Your task to perform on an android device: View the shopping cart on newegg.com. Add corsair k70 to the cart on newegg.com, then select checkout. Image 0: 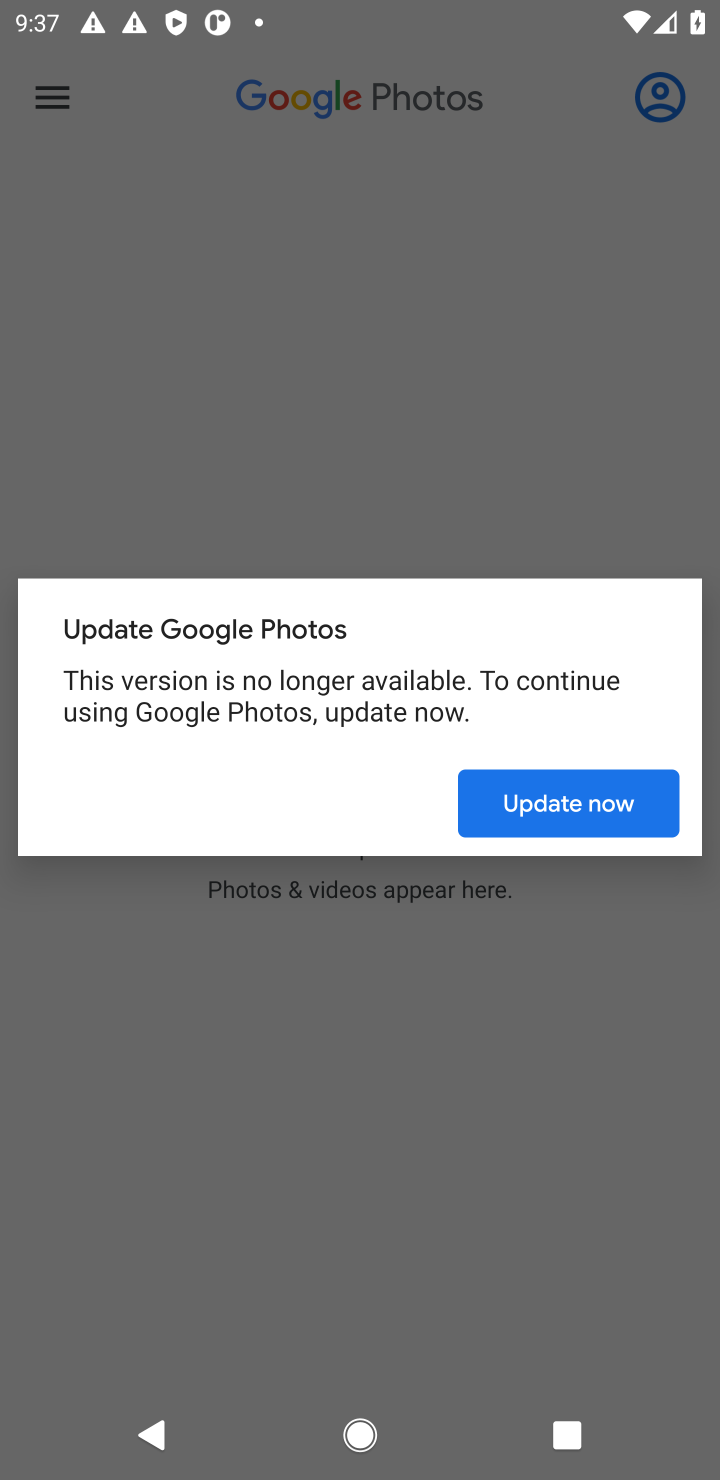
Step 0: press home button
Your task to perform on an android device: View the shopping cart on newegg.com. Add corsair k70 to the cart on newegg.com, then select checkout. Image 1: 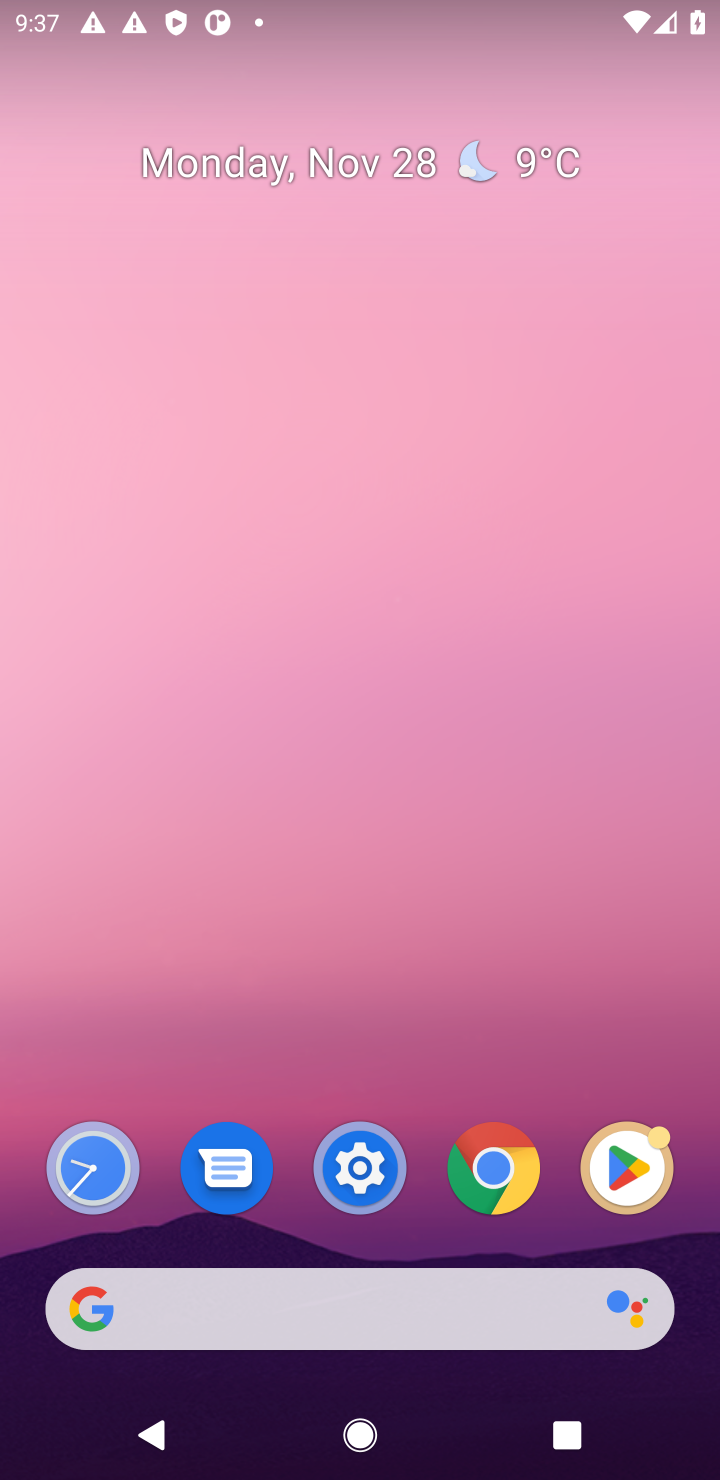
Step 1: click (434, 1311)
Your task to perform on an android device: View the shopping cart on newegg.com. Add corsair k70 to the cart on newegg.com, then select checkout. Image 2: 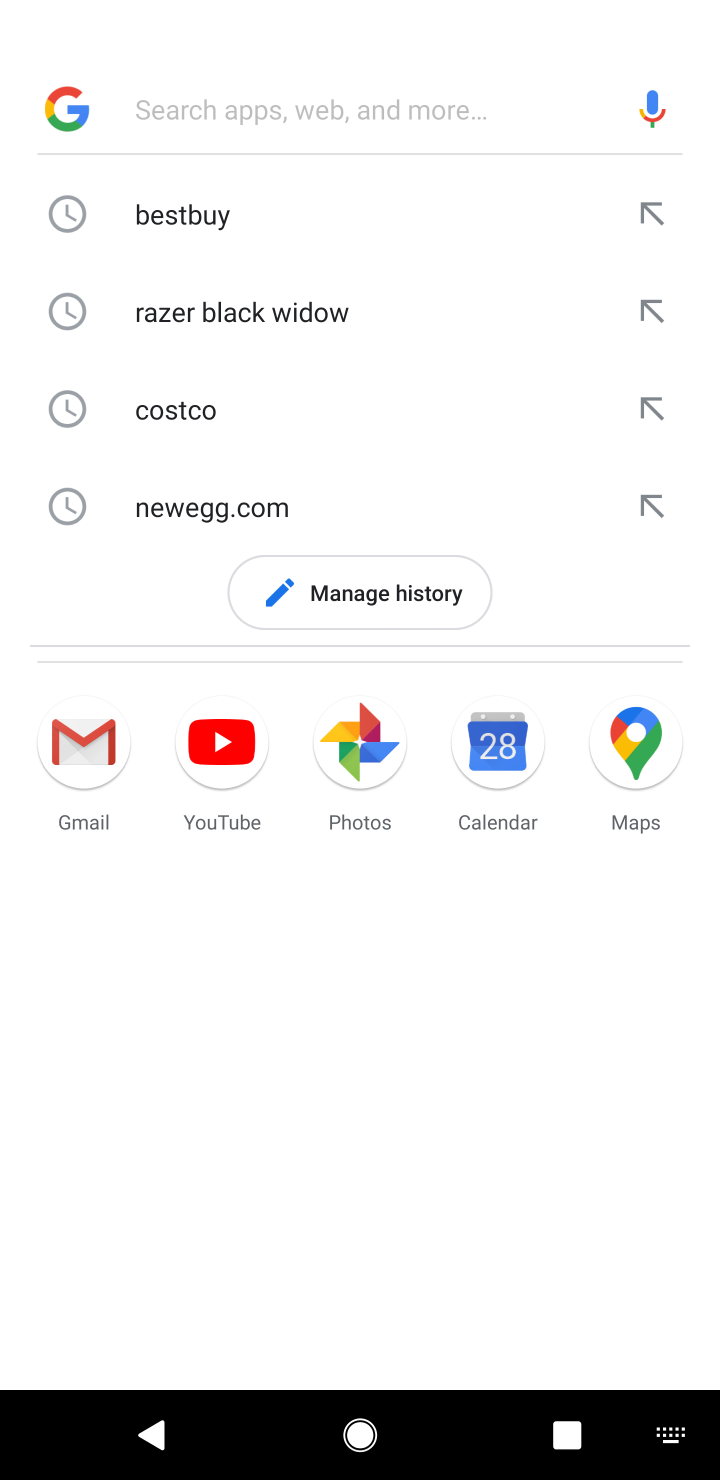
Step 2: type "newegg"
Your task to perform on an android device: View the shopping cart on newegg.com. Add corsair k70 to the cart on newegg.com, then select checkout. Image 3: 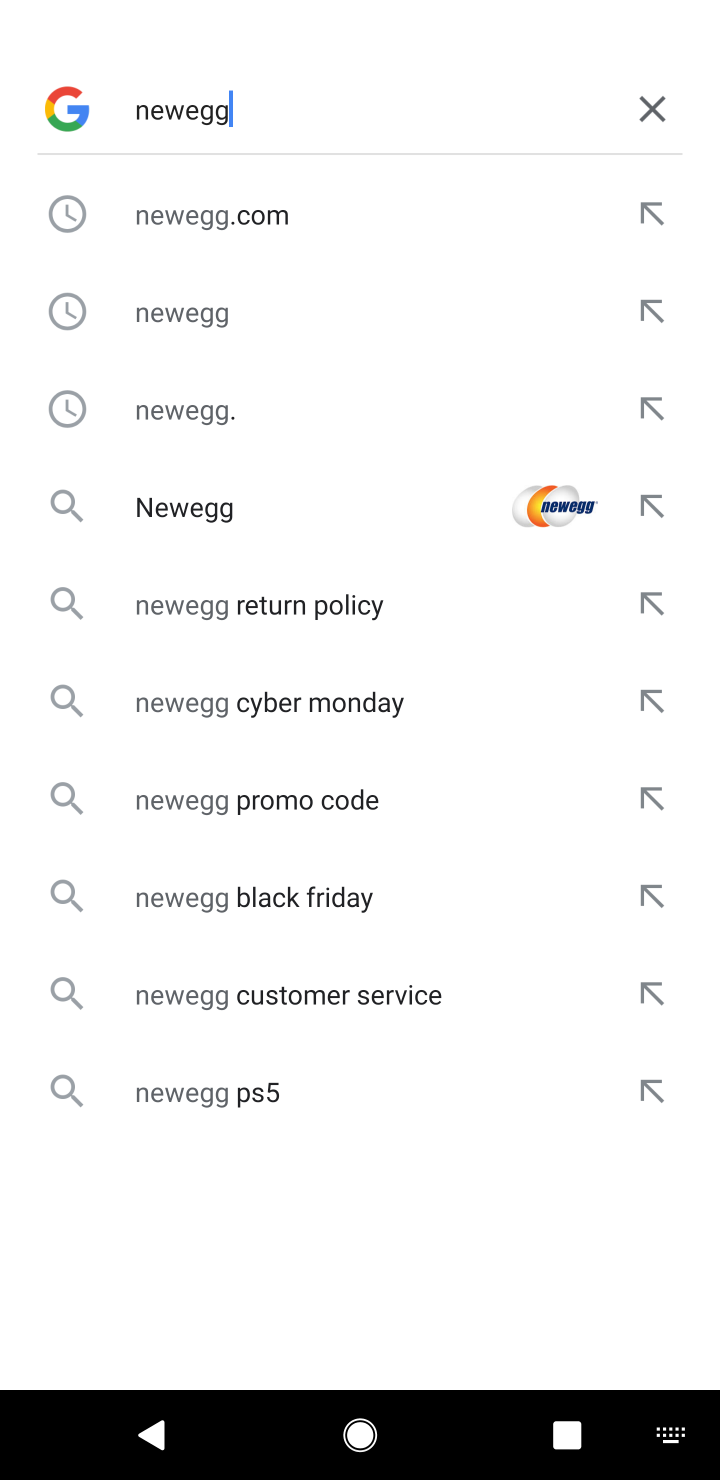
Step 3: click (342, 543)
Your task to perform on an android device: View the shopping cart on newegg.com. Add corsair k70 to the cart on newegg.com, then select checkout. Image 4: 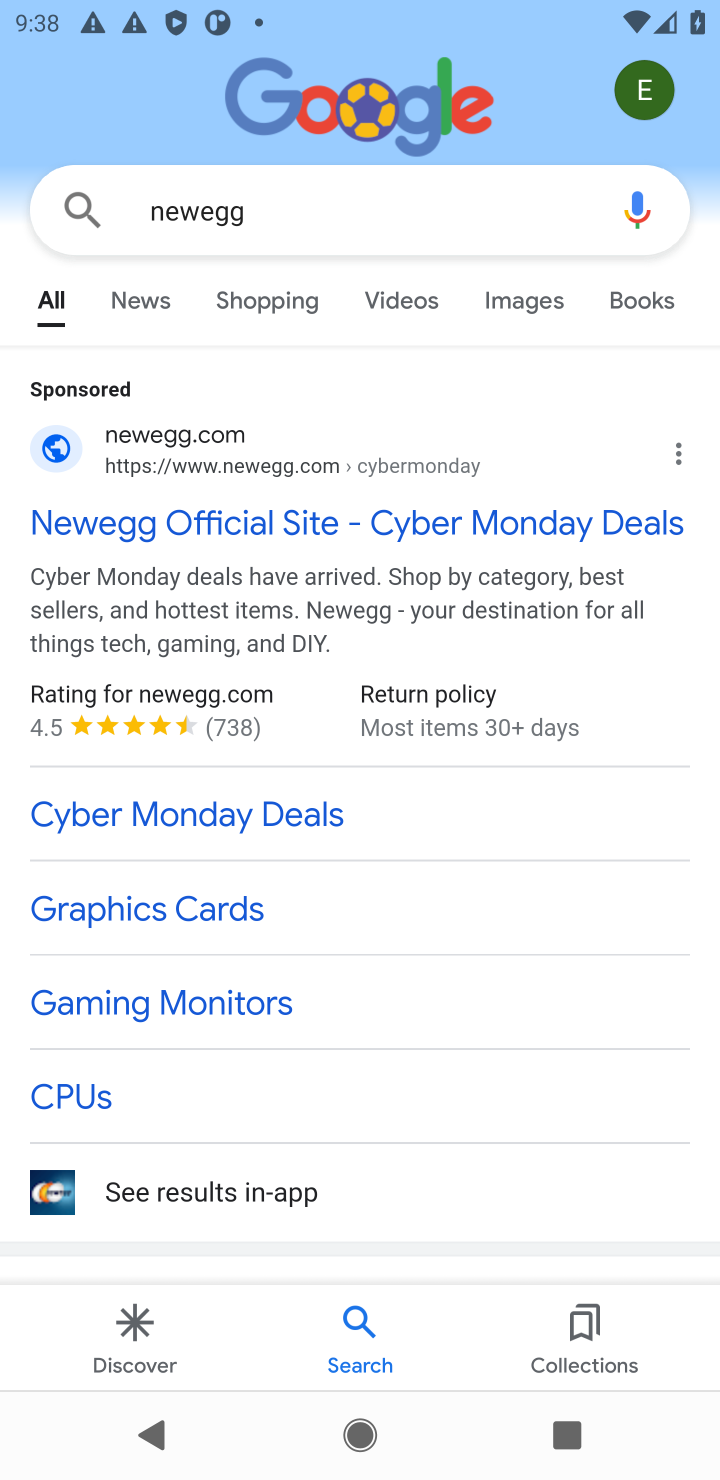
Step 4: click (342, 543)
Your task to perform on an android device: View the shopping cart on newegg.com. Add corsair k70 to the cart on newegg.com, then select checkout. Image 5: 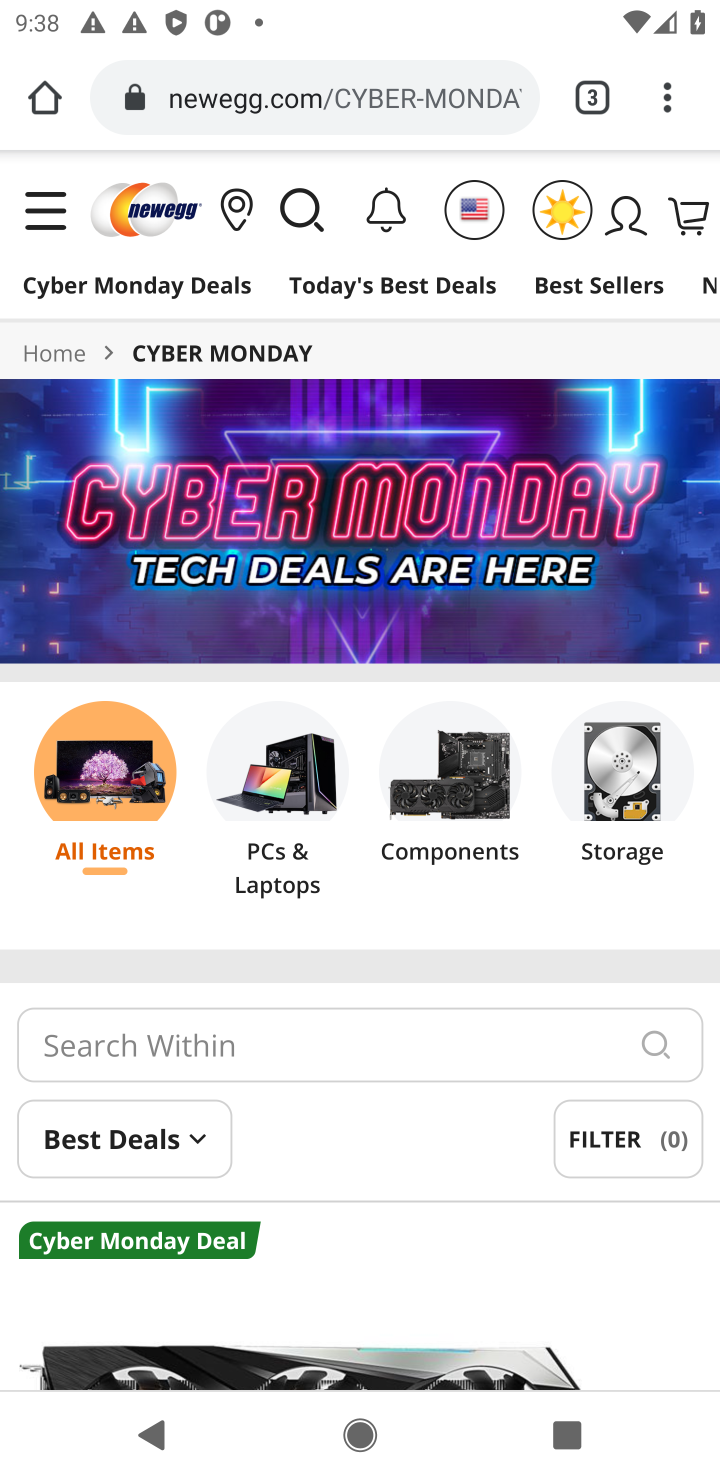
Step 5: click (312, 226)
Your task to perform on an android device: View the shopping cart on newegg.com. Add corsair k70 to the cart on newegg.com, then select checkout. Image 6: 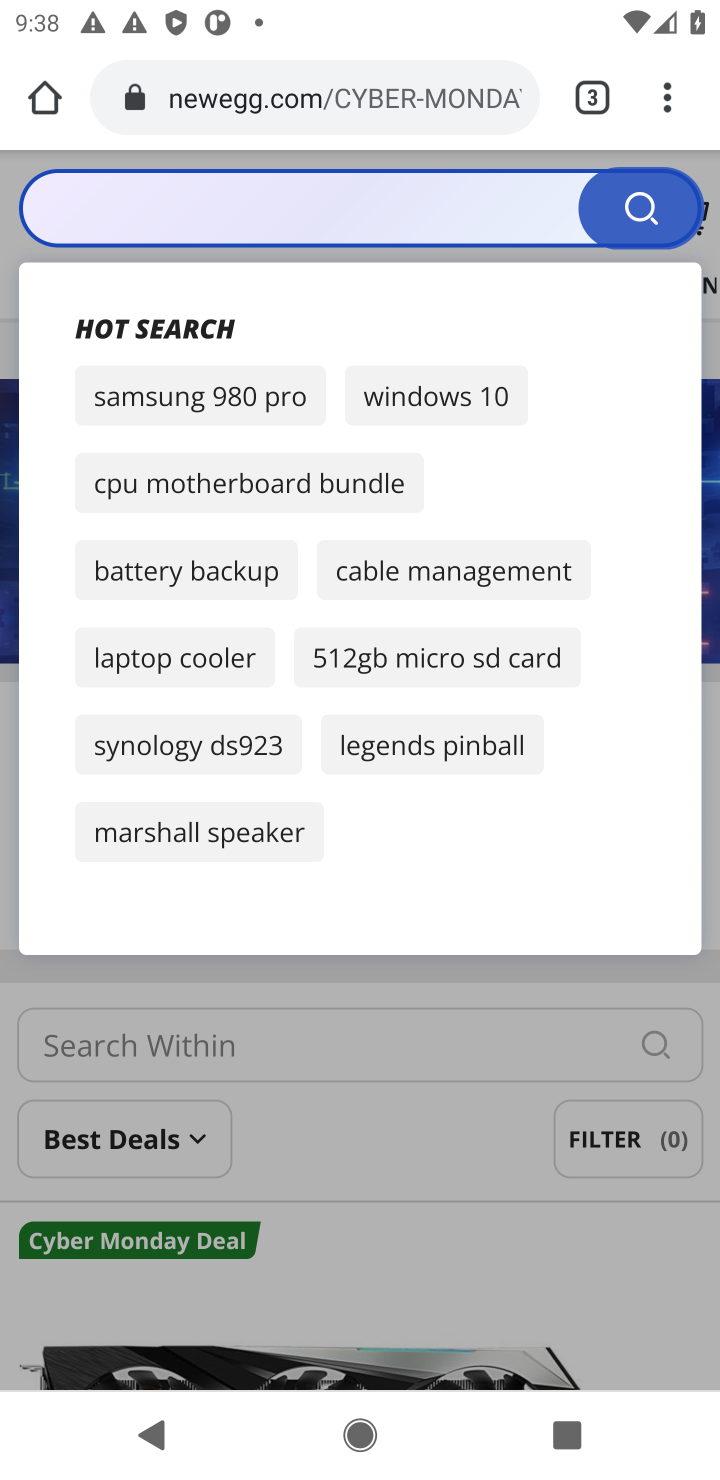
Step 6: type "corsair k70"
Your task to perform on an android device: View the shopping cart on newegg.com. Add corsair k70 to the cart on newegg.com, then select checkout. Image 7: 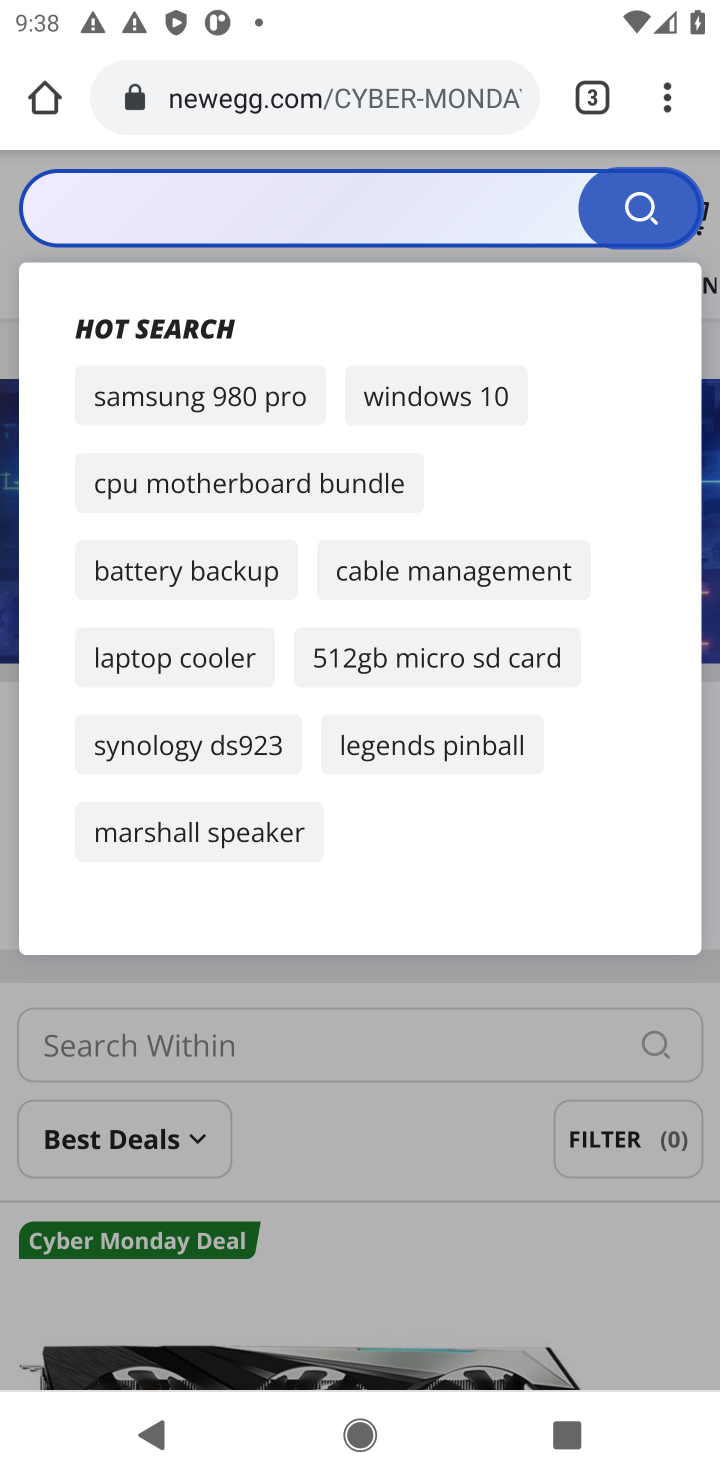
Step 7: click (319, 231)
Your task to perform on an android device: View the shopping cart on newegg.com. Add corsair k70 to the cart on newegg.com, then select checkout. Image 8: 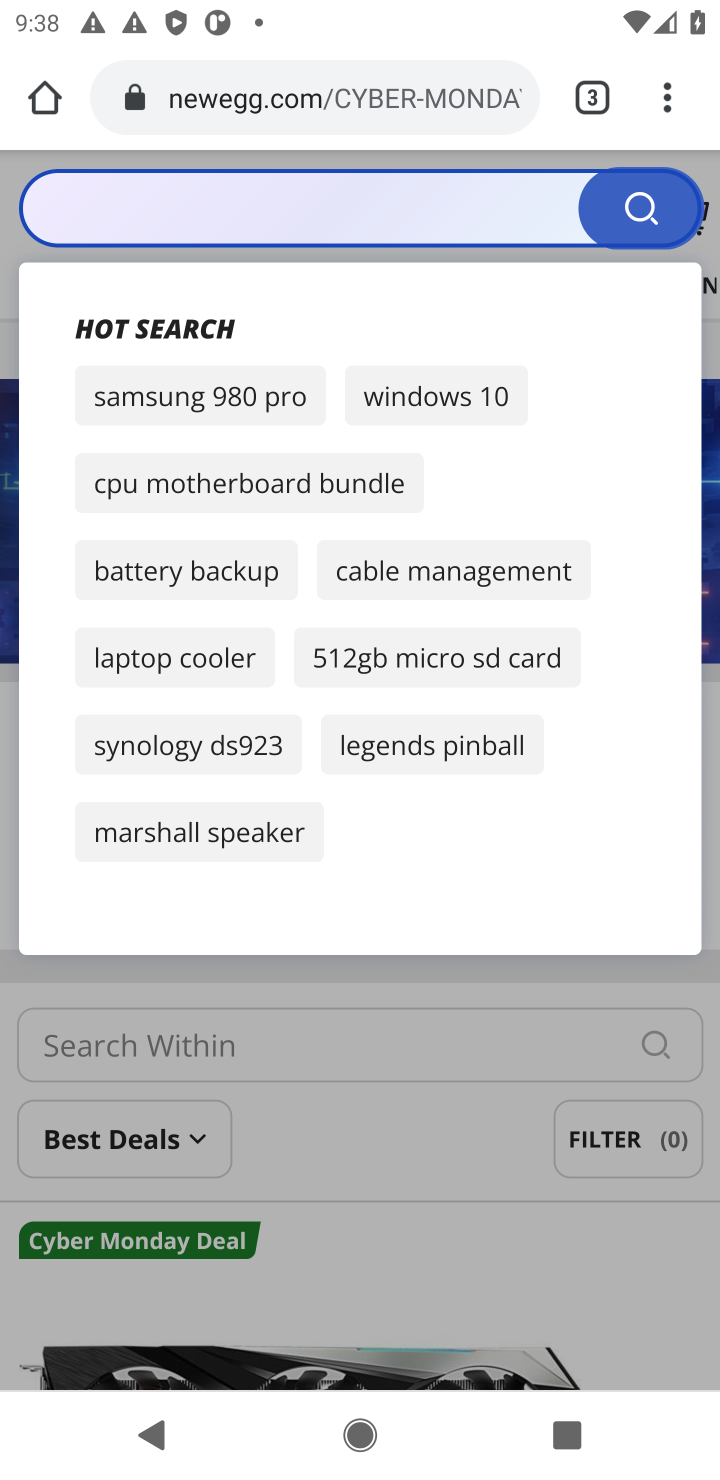
Step 8: click (319, 231)
Your task to perform on an android device: View the shopping cart on newegg.com. Add corsair k70 to the cart on newegg.com, then select checkout. Image 9: 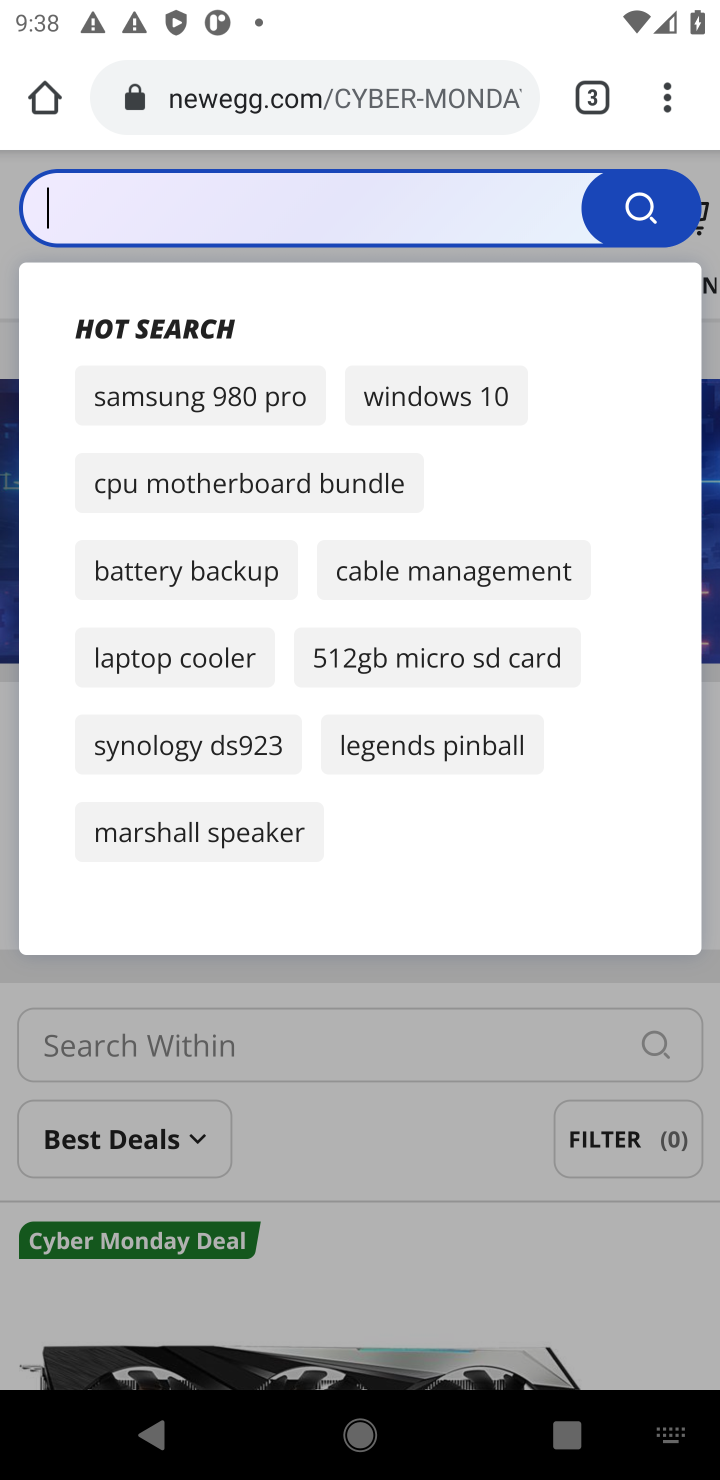
Step 9: type "corsair k70"
Your task to perform on an android device: View the shopping cart on newegg.com. Add corsair k70 to the cart on newegg.com, then select checkout. Image 10: 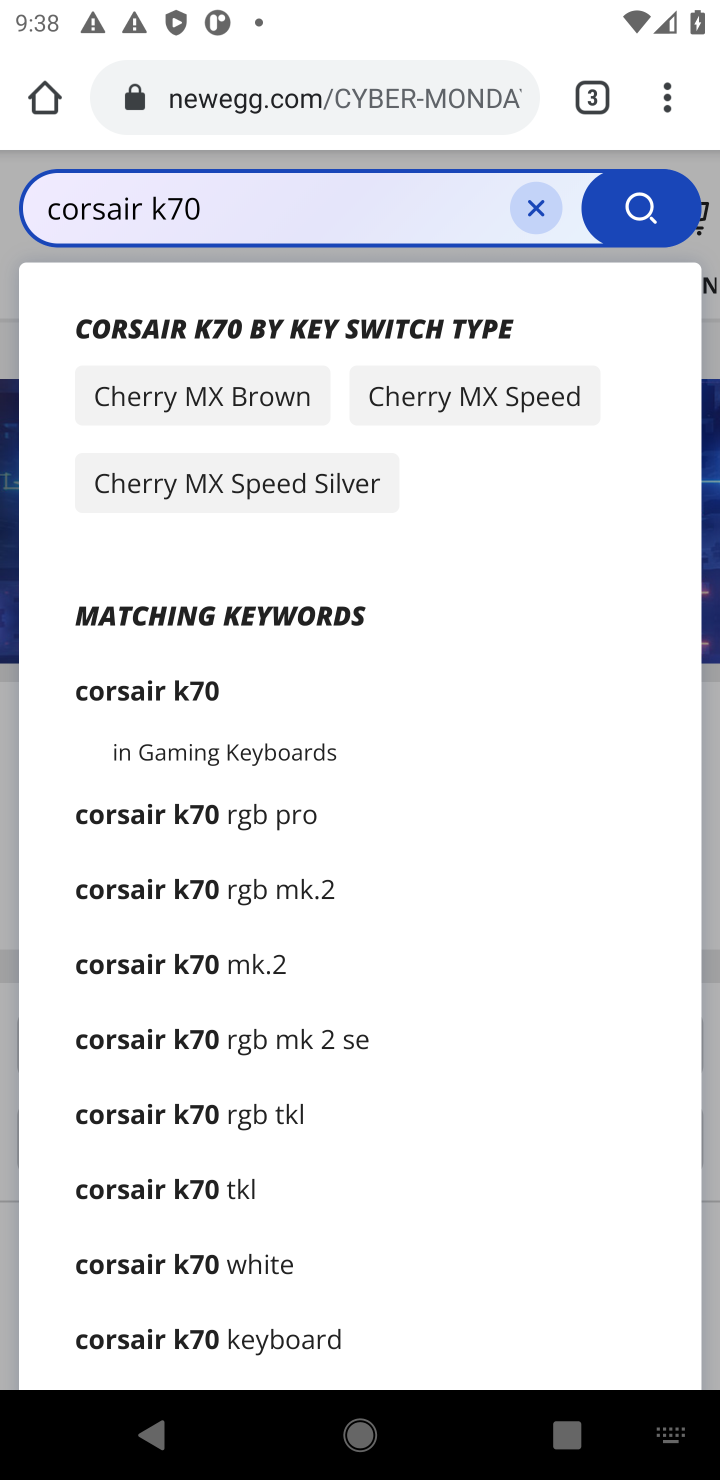
Step 10: click (464, 333)
Your task to perform on an android device: View the shopping cart on newegg.com. Add corsair k70 to the cart on newegg.com, then select checkout. Image 11: 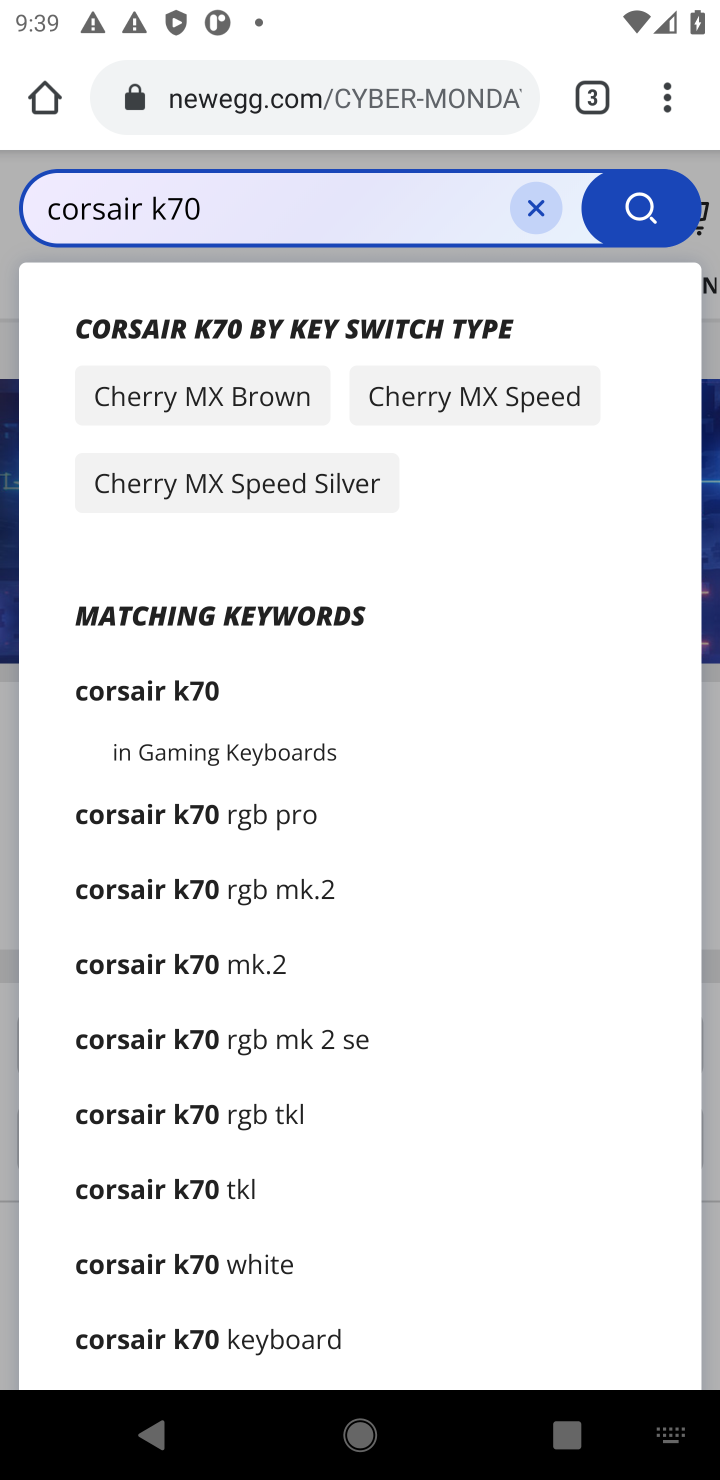
Step 11: task complete